Your task to perform on an android device: Open Reddit.com Image 0: 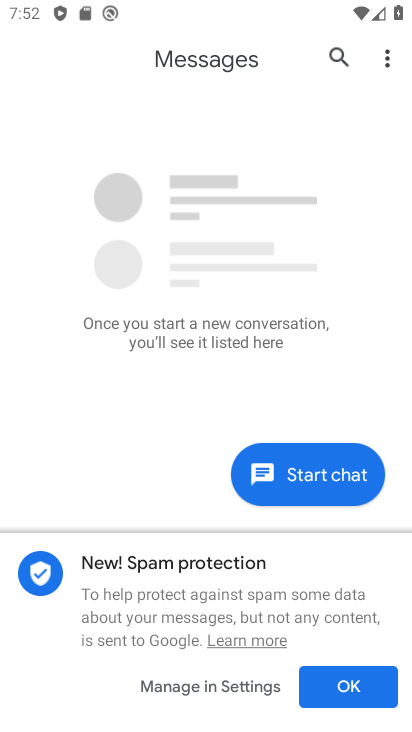
Step 0: press home button
Your task to perform on an android device: Open Reddit.com Image 1: 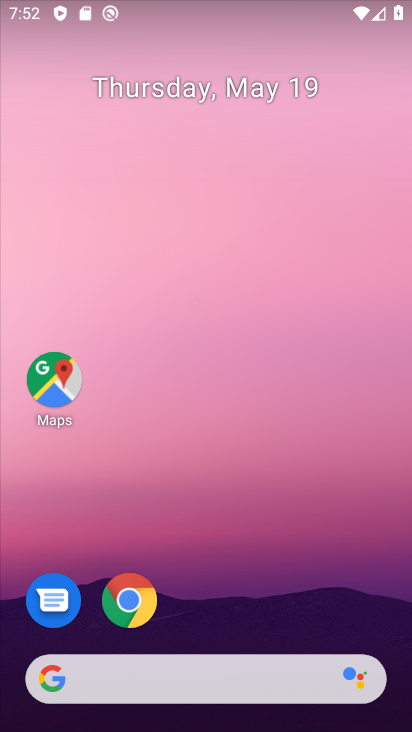
Step 1: click (119, 621)
Your task to perform on an android device: Open Reddit.com Image 2: 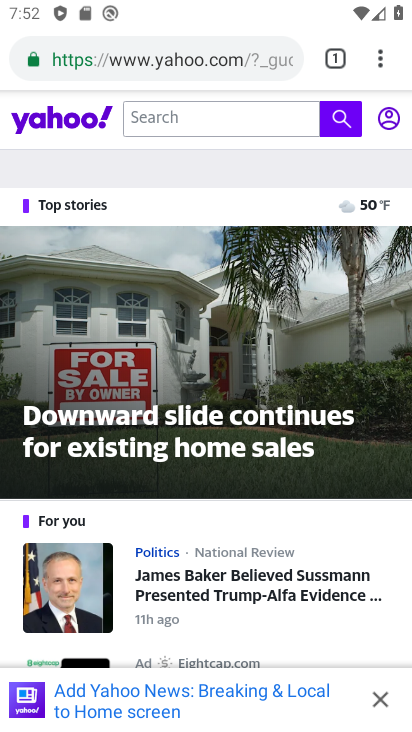
Step 2: click (196, 68)
Your task to perform on an android device: Open Reddit.com Image 3: 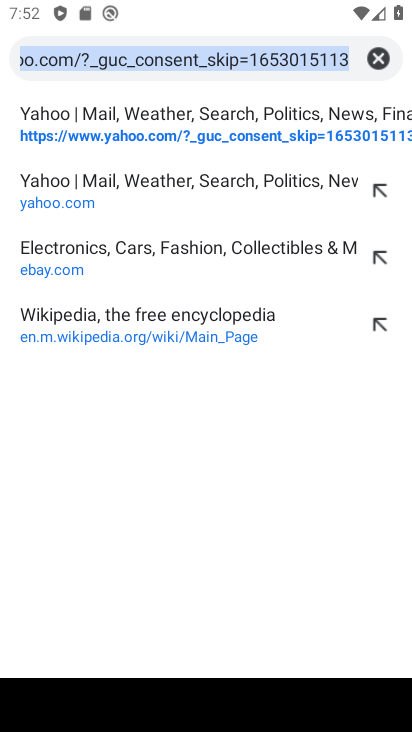
Step 3: type "reedit"
Your task to perform on an android device: Open Reddit.com Image 4: 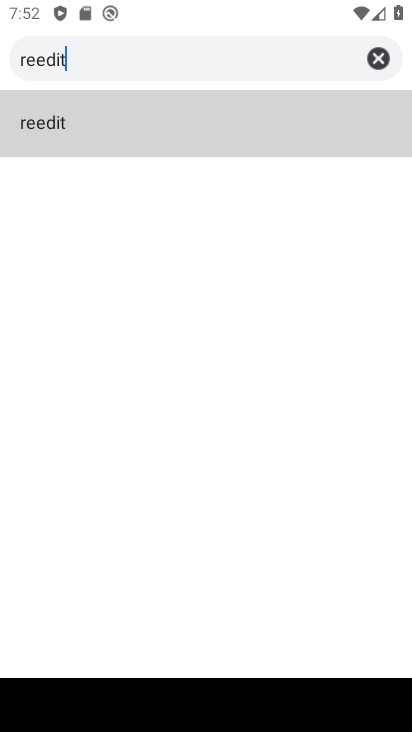
Step 4: click (159, 121)
Your task to perform on an android device: Open Reddit.com Image 5: 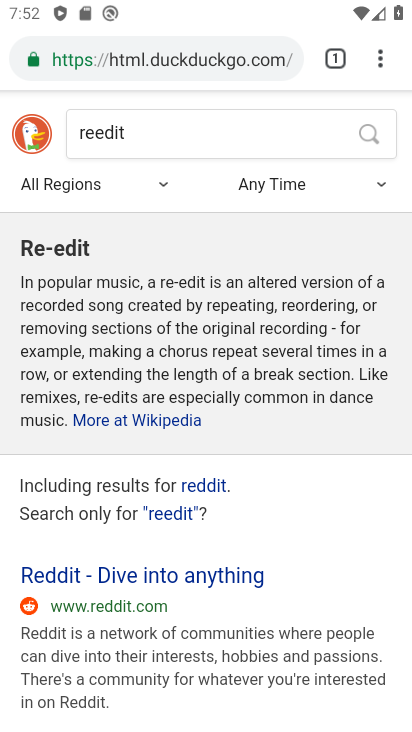
Step 5: click (62, 249)
Your task to perform on an android device: Open Reddit.com Image 6: 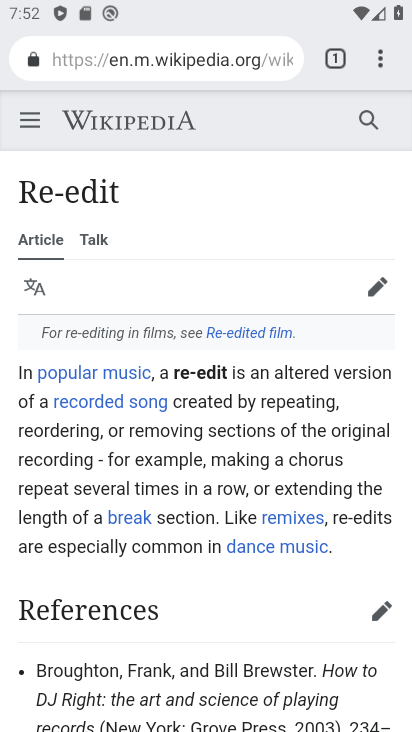
Step 6: task complete